Your task to perform on an android device: Open settings Image 0: 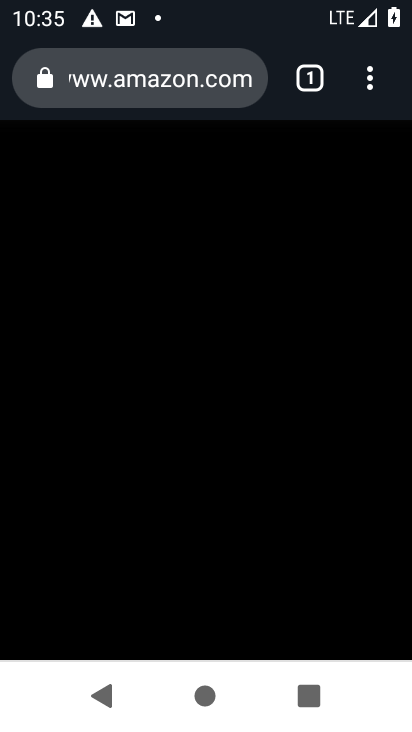
Step 0: press back button
Your task to perform on an android device: Open settings Image 1: 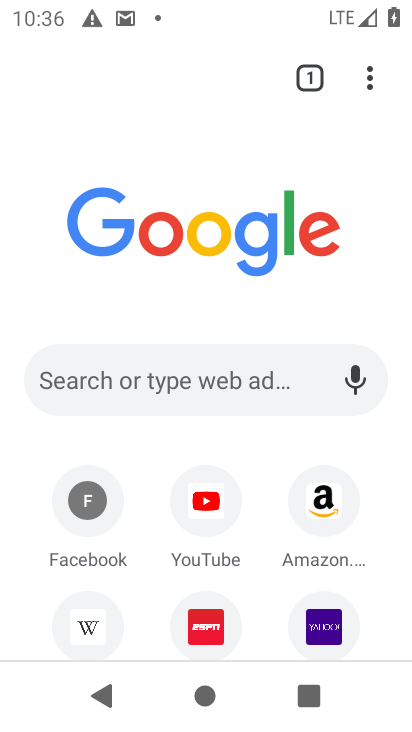
Step 1: press back button
Your task to perform on an android device: Open settings Image 2: 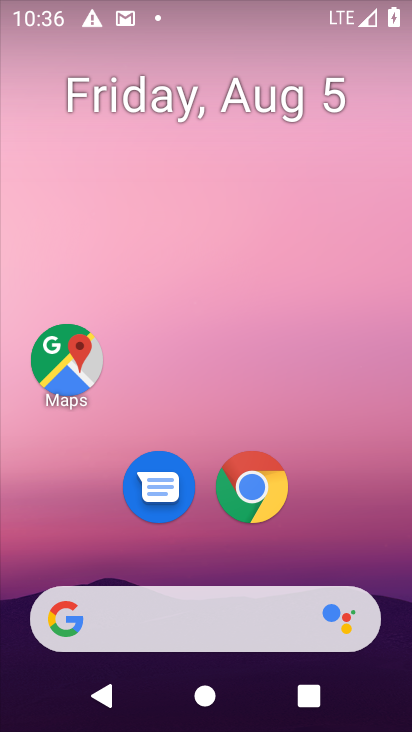
Step 2: drag from (68, 509) to (3, 351)
Your task to perform on an android device: Open settings Image 3: 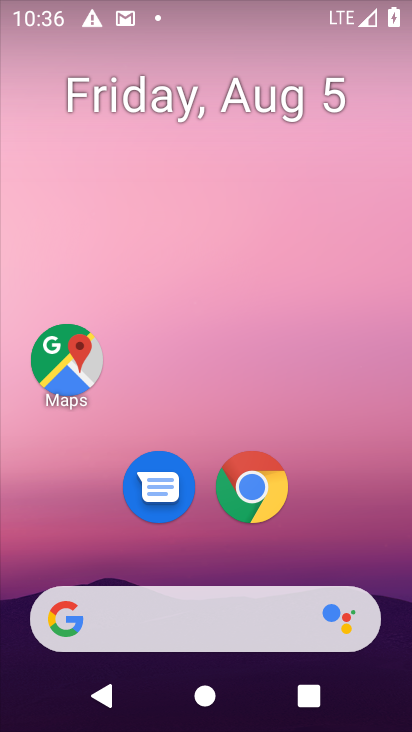
Step 3: click (332, 230)
Your task to perform on an android device: Open settings Image 4: 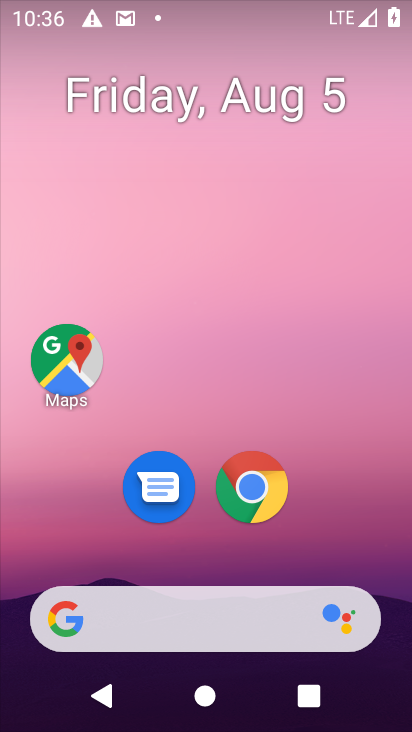
Step 4: drag from (191, 566) to (258, 14)
Your task to perform on an android device: Open settings Image 5: 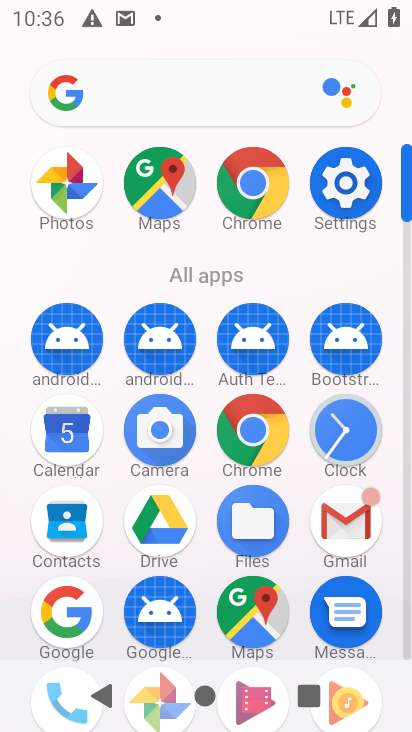
Step 5: click (345, 173)
Your task to perform on an android device: Open settings Image 6: 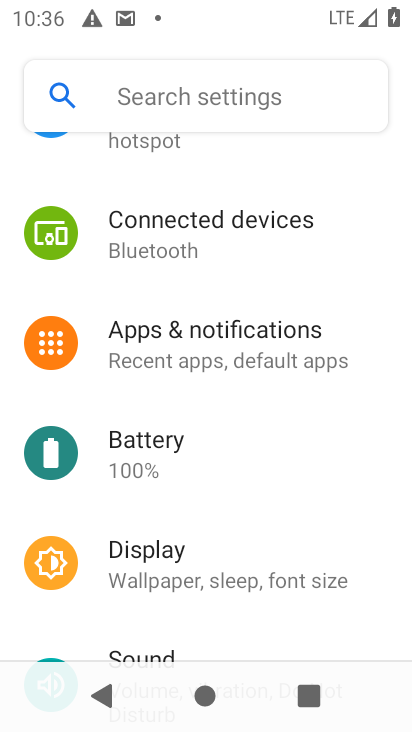
Step 6: task complete